Your task to perform on an android device: turn vacation reply on in the gmail app Image 0: 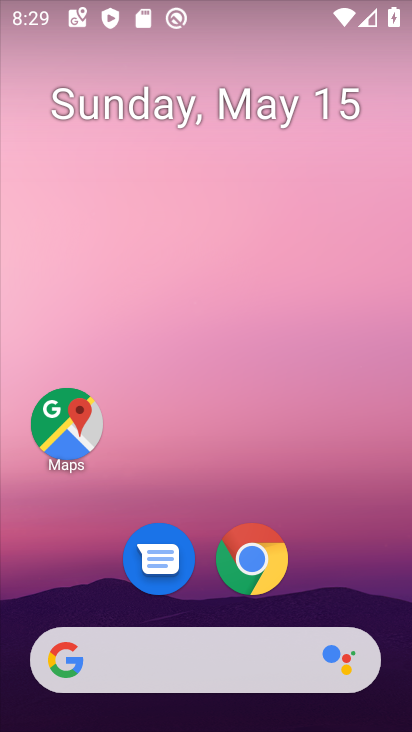
Step 0: drag from (342, 592) to (328, 163)
Your task to perform on an android device: turn vacation reply on in the gmail app Image 1: 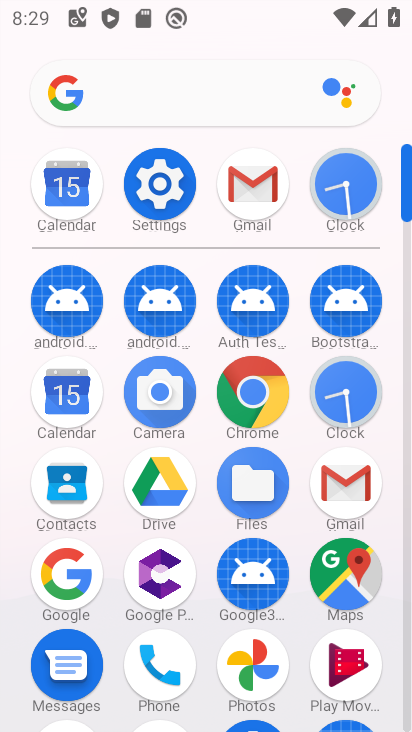
Step 1: click (269, 184)
Your task to perform on an android device: turn vacation reply on in the gmail app Image 2: 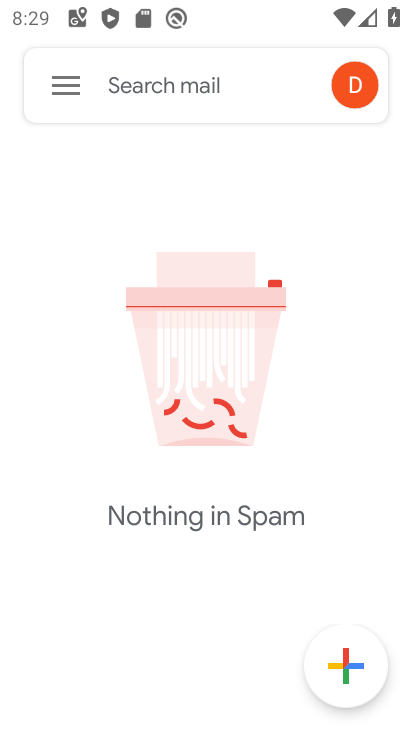
Step 2: click (65, 95)
Your task to perform on an android device: turn vacation reply on in the gmail app Image 3: 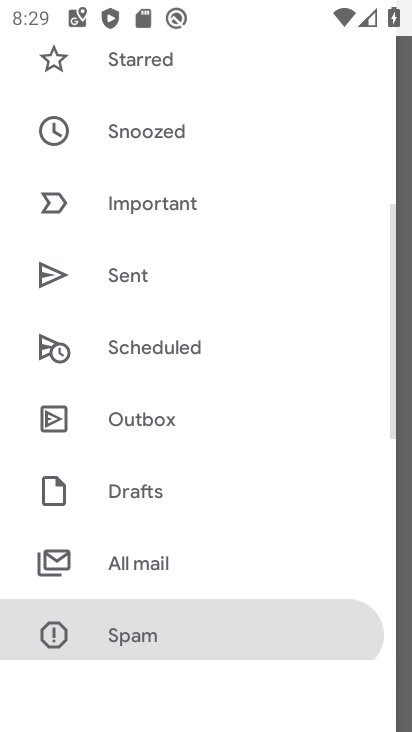
Step 3: drag from (178, 636) to (169, 343)
Your task to perform on an android device: turn vacation reply on in the gmail app Image 4: 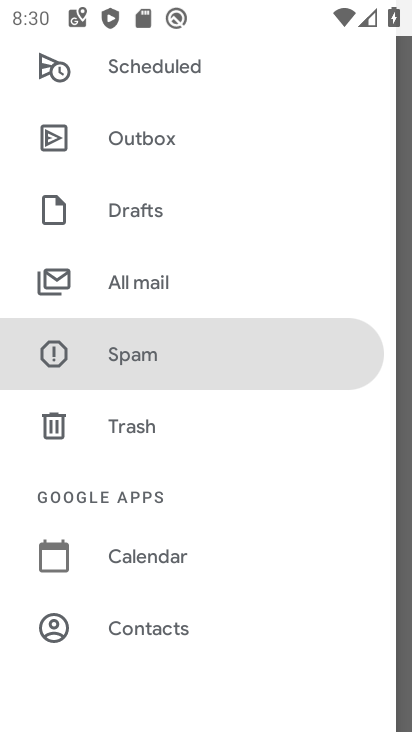
Step 4: drag from (215, 565) to (231, 277)
Your task to perform on an android device: turn vacation reply on in the gmail app Image 5: 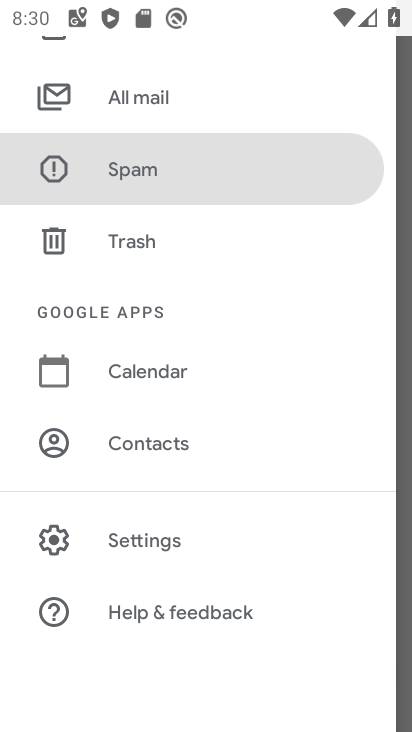
Step 5: click (158, 541)
Your task to perform on an android device: turn vacation reply on in the gmail app Image 6: 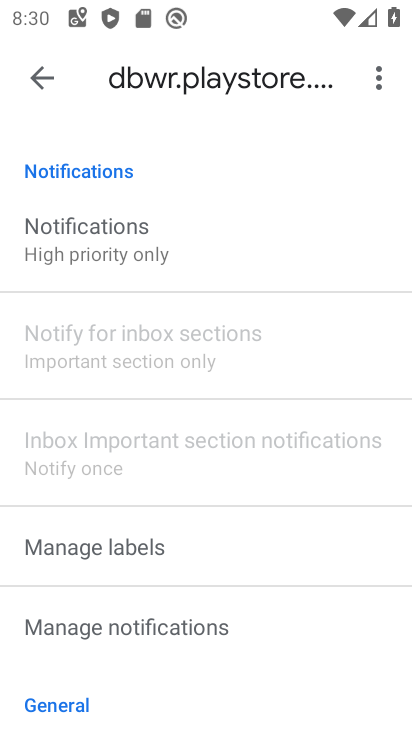
Step 6: drag from (245, 623) to (242, 211)
Your task to perform on an android device: turn vacation reply on in the gmail app Image 7: 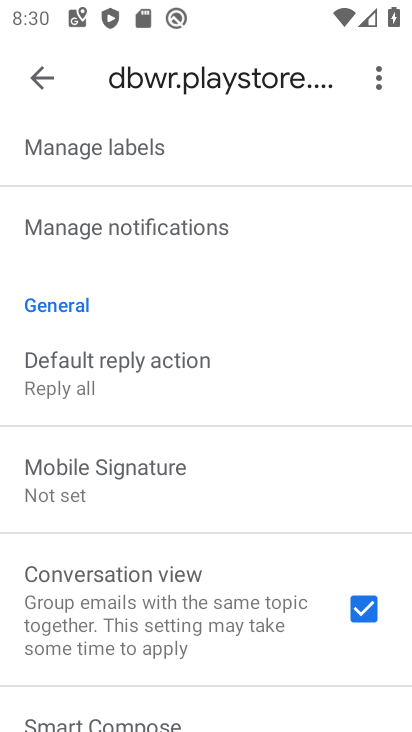
Step 7: drag from (144, 598) to (221, 234)
Your task to perform on an android device: turn vacation reply on in the gmail app Image 8: 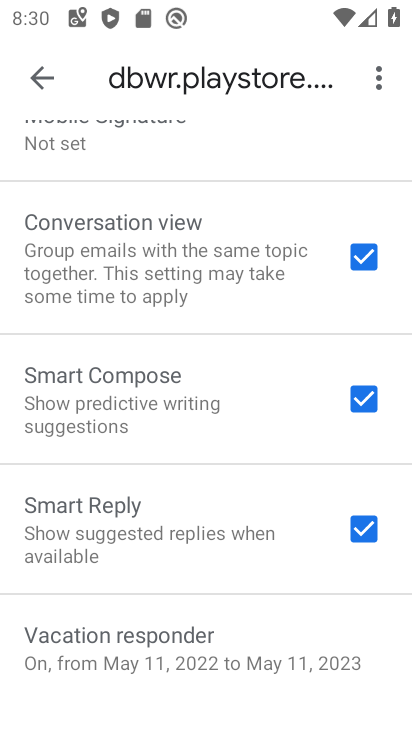
Step 8: click (233, 633)
Your task to perform on an android device: turn vacation reply on in the gmail app Image 9: 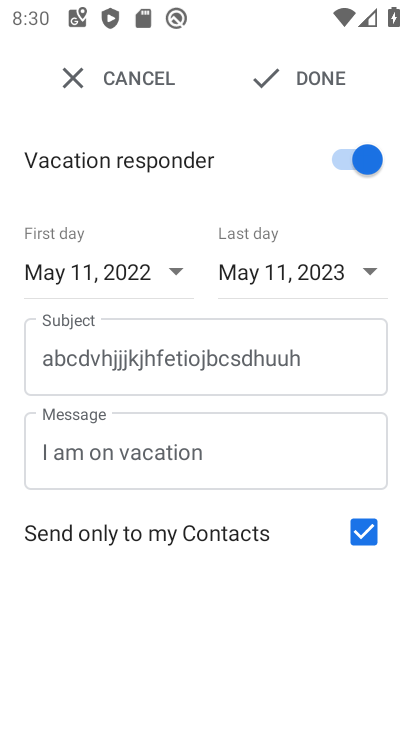
Step 9: click (327, 81)
Your task to perform on an android device: turn vacation reply on in the gmail app Image 10: 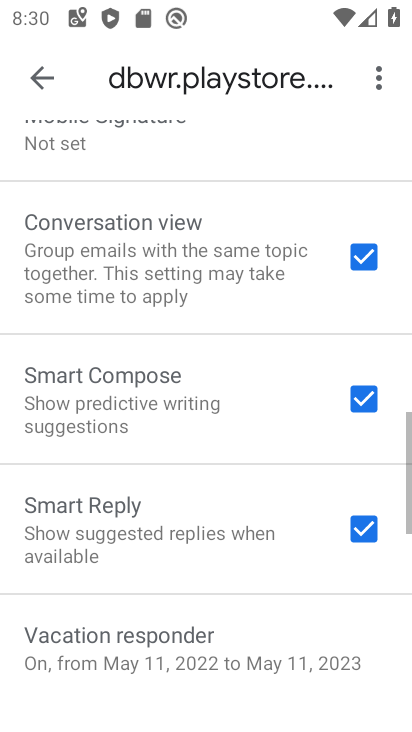
Step 10: task complete